Your task to perform on an android device: clear history in the chrome app Image 0: 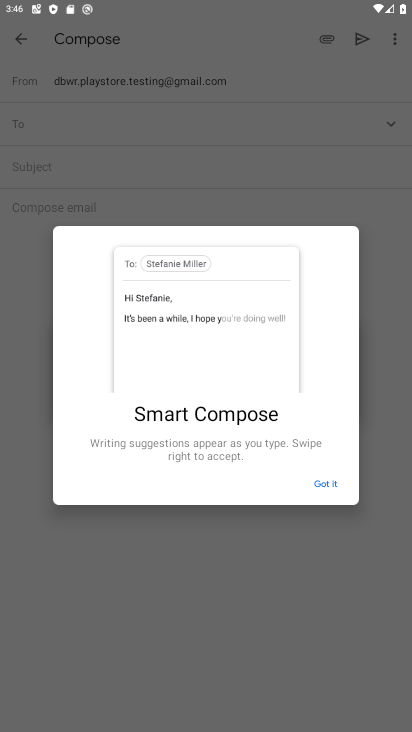
Step 0: press home button
Your task to perform on an android device: clear history in the chrome app Image 1: 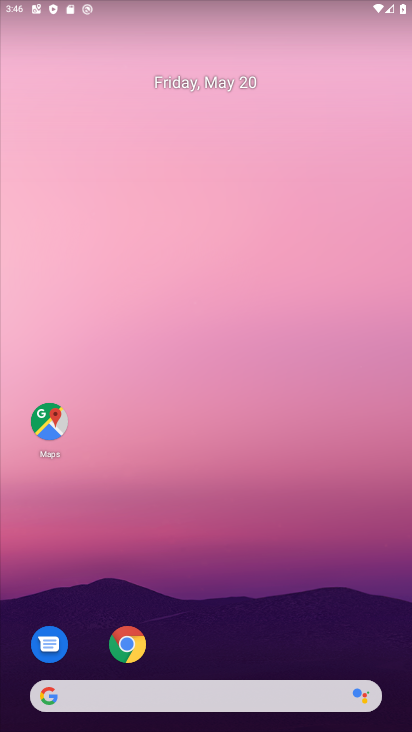
Step 1: click (125, 645)
Your task to perform on an android device: clear history in the chrome app Image 2: 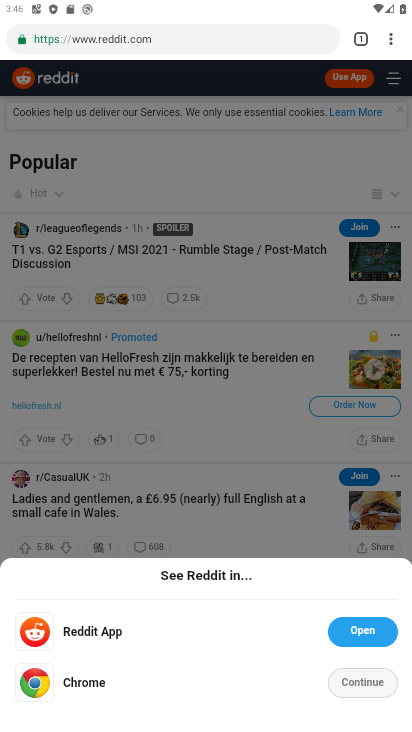
Step 2: drag from (388, 36) to (233, 271)
Your task to perform on an android device: clear history in the chrome app Image 3: 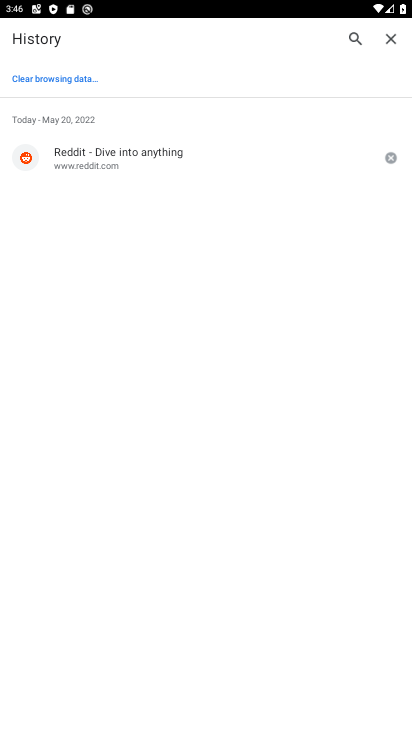
Step 3: click (64, 83)
Your task to perform on an android device: clear history in the chrome app Image 4: 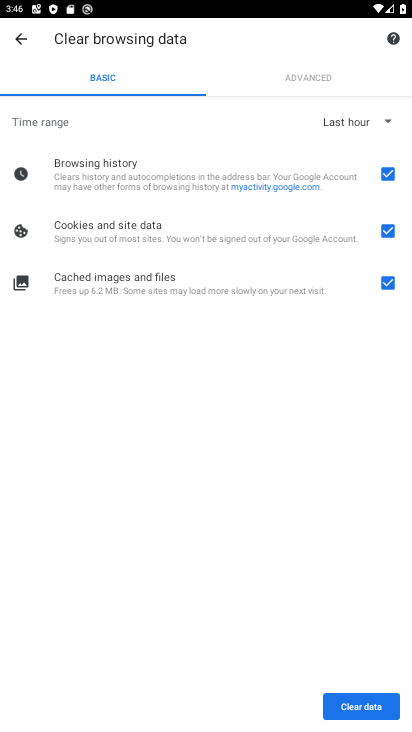
Step 4: click (358, 715)
Your task to perform on an android device: clear history in the chrome app Image 5: 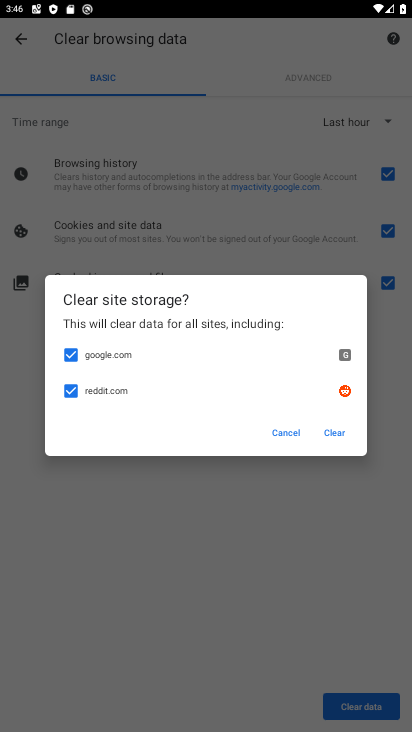
Step 5: click (342, 432)
Your task to perform on an android device: clear history in the chrome app Image 6: 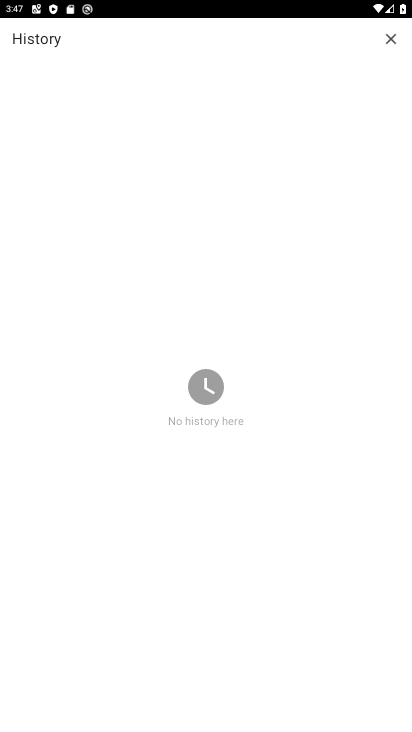
Step 6: task complete